Your task to perform on an android device: Open Chrome and go to the settings page Image 0: 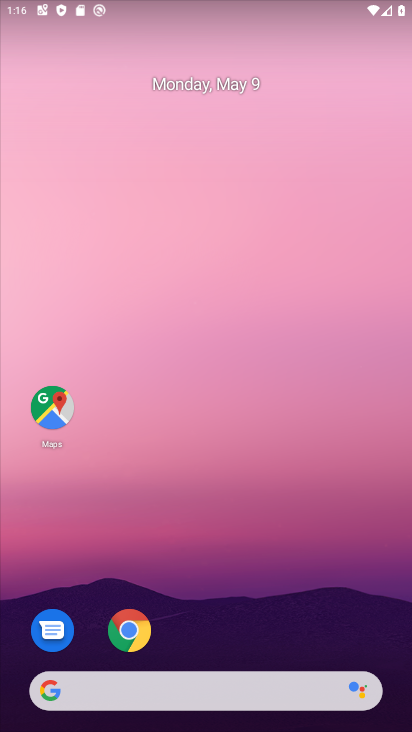
Step 0: drag from (233, 729) to (353, 244)
Your task to perform on an android device: Open Chrome and go to the settings page Image 1: 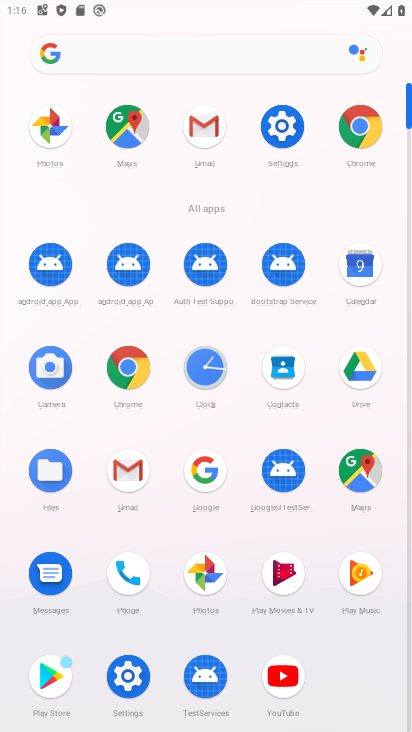
Step 1: click (280, 140)
Your task to perform on an android device: Open Chrome and go to the settings page Image 2: 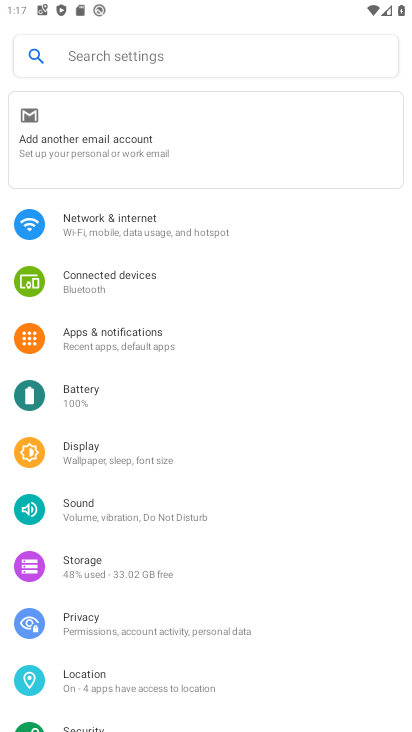
Step 2: press home button
Your task to perform on an android device: Open Chrome and go to the settings page Image 3: 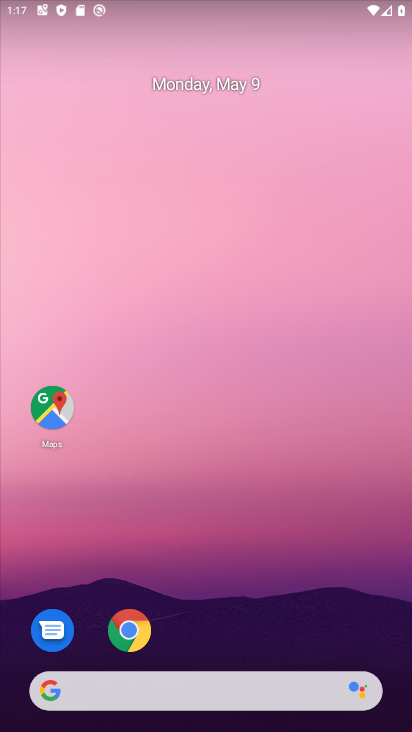
Step 3: click (142, 630)
Your task to perform on an android device: Open Chrome and go to the settings page Image 4: 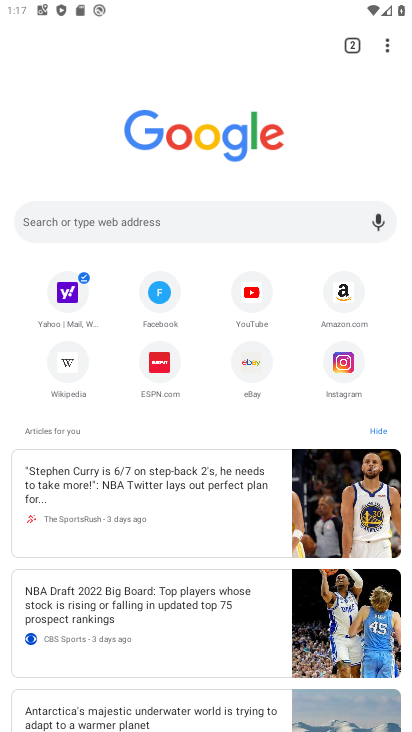
Step 4: click (378, 63)
Your task to perform on an android device: Open Chrome and go to the settings page Image 5: 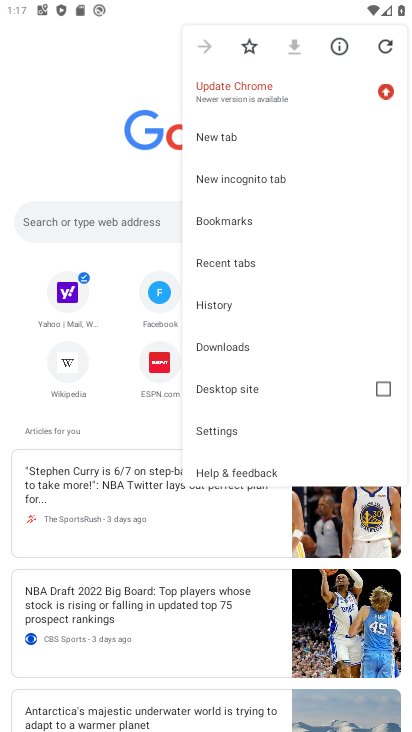
Step 5: click (221, 441)
Your task to perform on an android device: Open Chrome and go to the settings page Image 6: 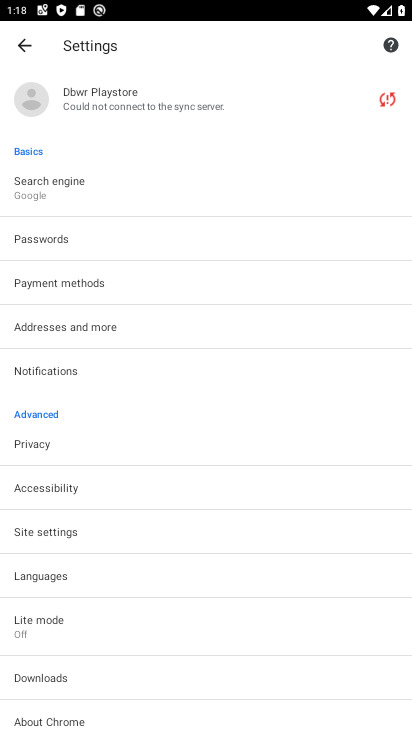
Step 6: task complete